Your task to perform on an android device: Go to calendar. Show me events next week Image 0: 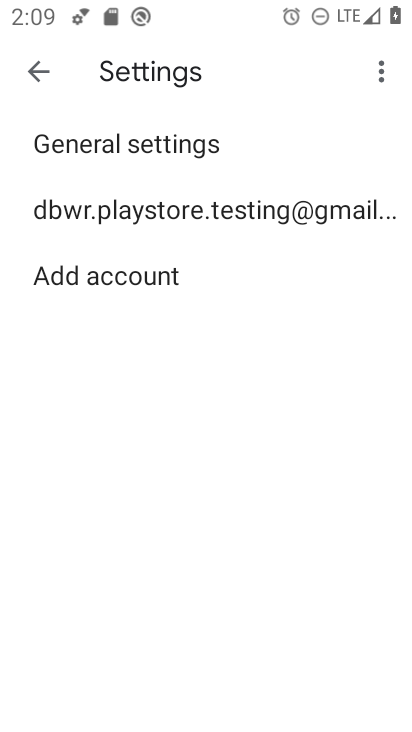
Step 0: press home button
Your task to perform on an android device: Go to calendar. Show me events next week Image 1: 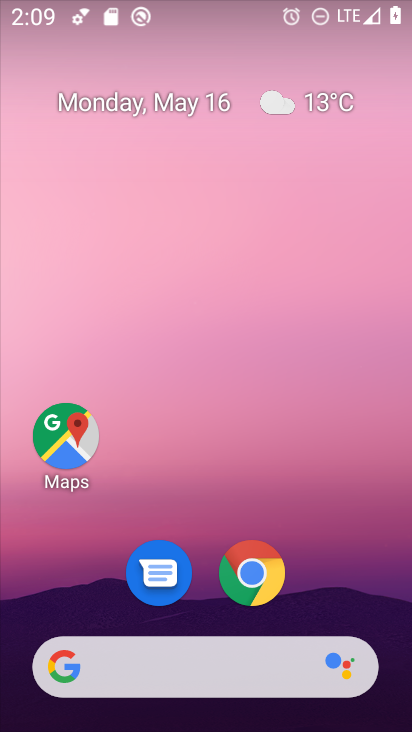
Step 1: drag from (203, 680) to (230, 165)
Your task to perform on an android device: Go to calendar. Show me events next week Image 2: 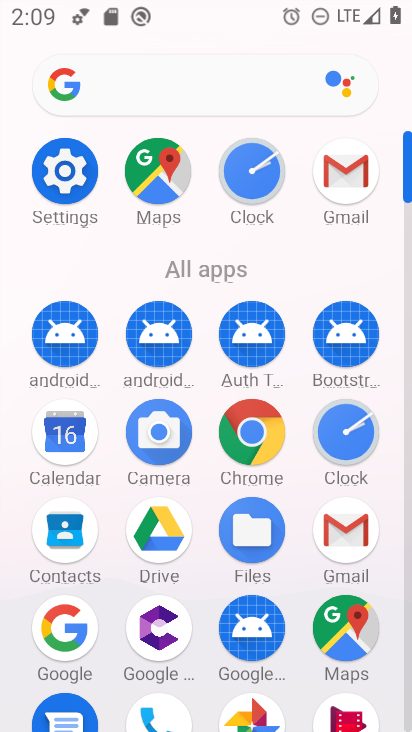
Step 2: click (71, 447)
Your task to perform on an android device: Go to calendar. Show me events next week Image 3: 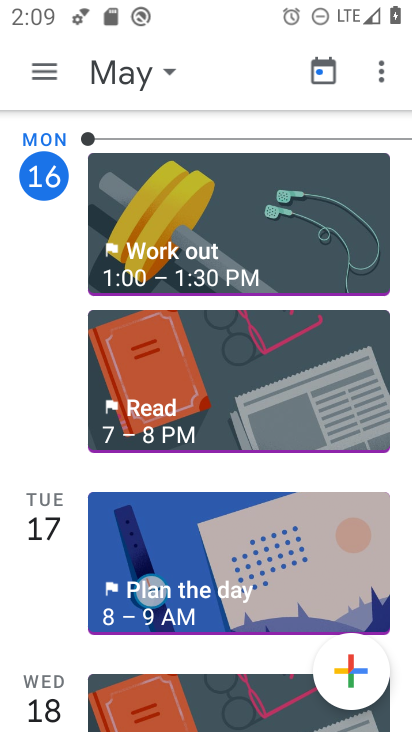
Step 3: click (51, 82)
Your task to perform on an android device: Go to calendar. Show me events next week Image 4: 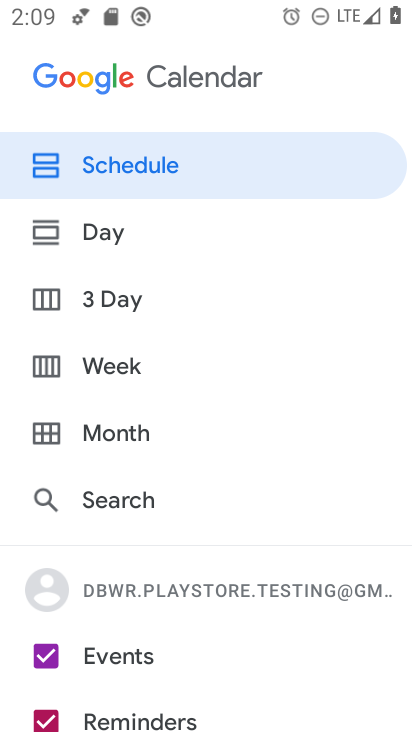
Step 4: click (91, 370)
Your task to perform on an android device: Go to calendar. Show me events next week Image 5: 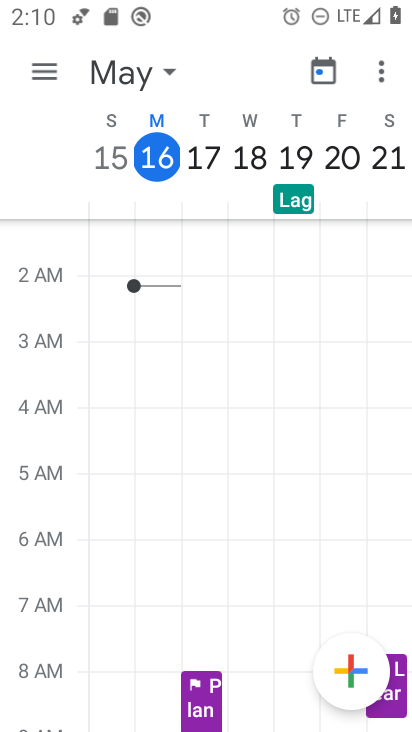
Step 5: task complete